Your task to perform on an android device: Open Google Image 0: 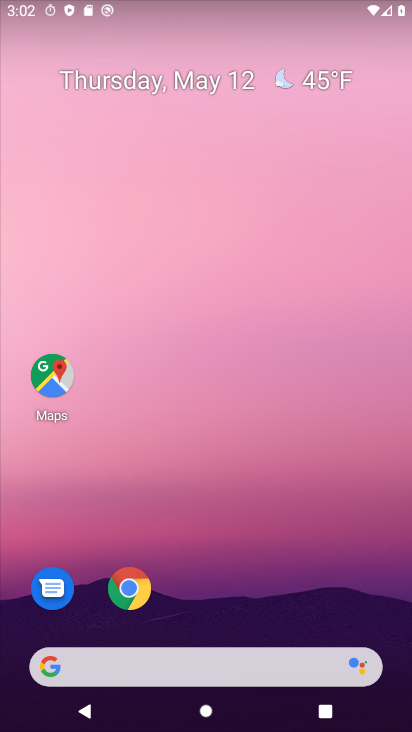
Step 0: click (201, 670)
Your task to perform on an android device: Open Google Image 1: 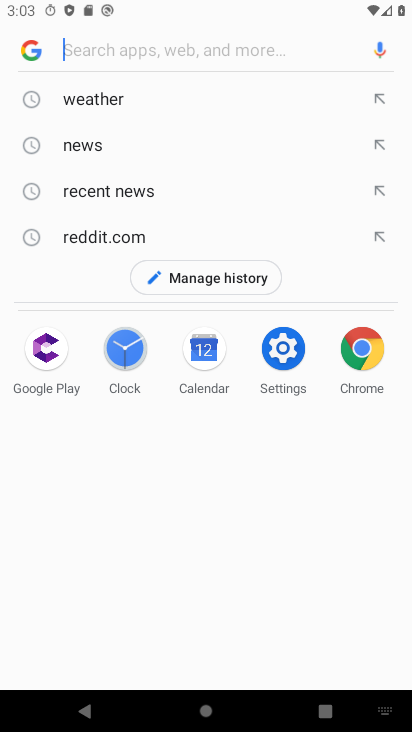
Step 1: task complete